Your task to perform on an android device: install app "DuckDuckGo Privacy Browser" Image 0: 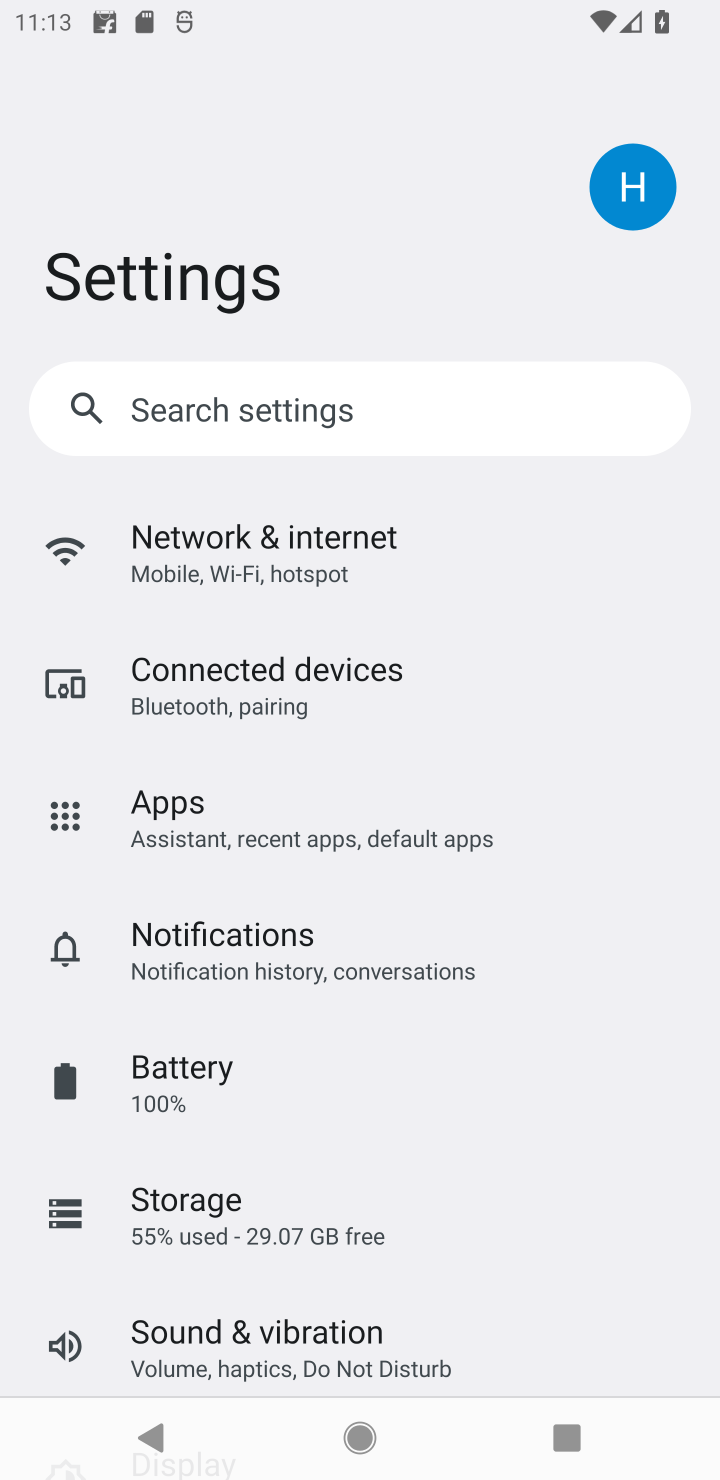
Step 0: press home button
Your task to perform on an android device: install app "DuckDuckGo Privacy Browser" Image 1: 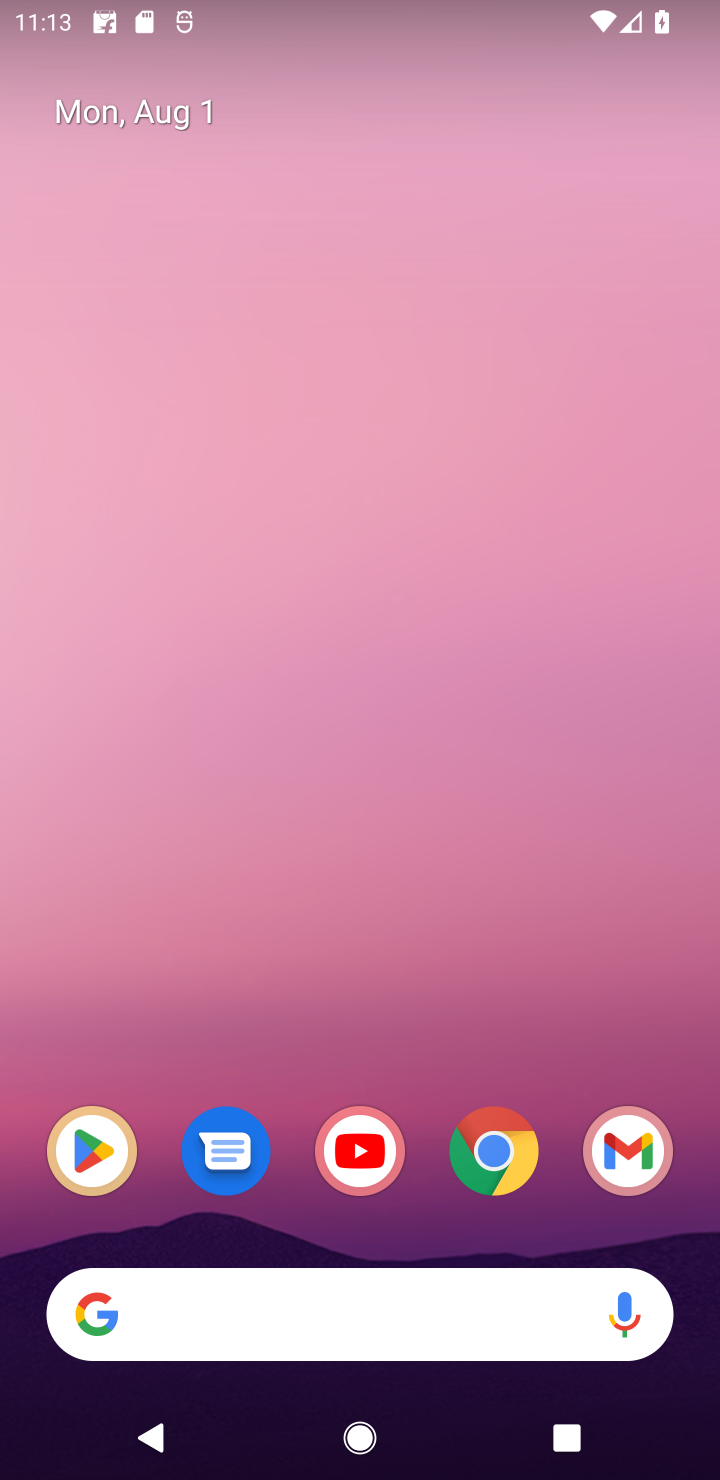
Step 1: click (105, 1130)
Your task to perform on an android device: install app "DuckDuckGo Privacy Browser" Image 2: 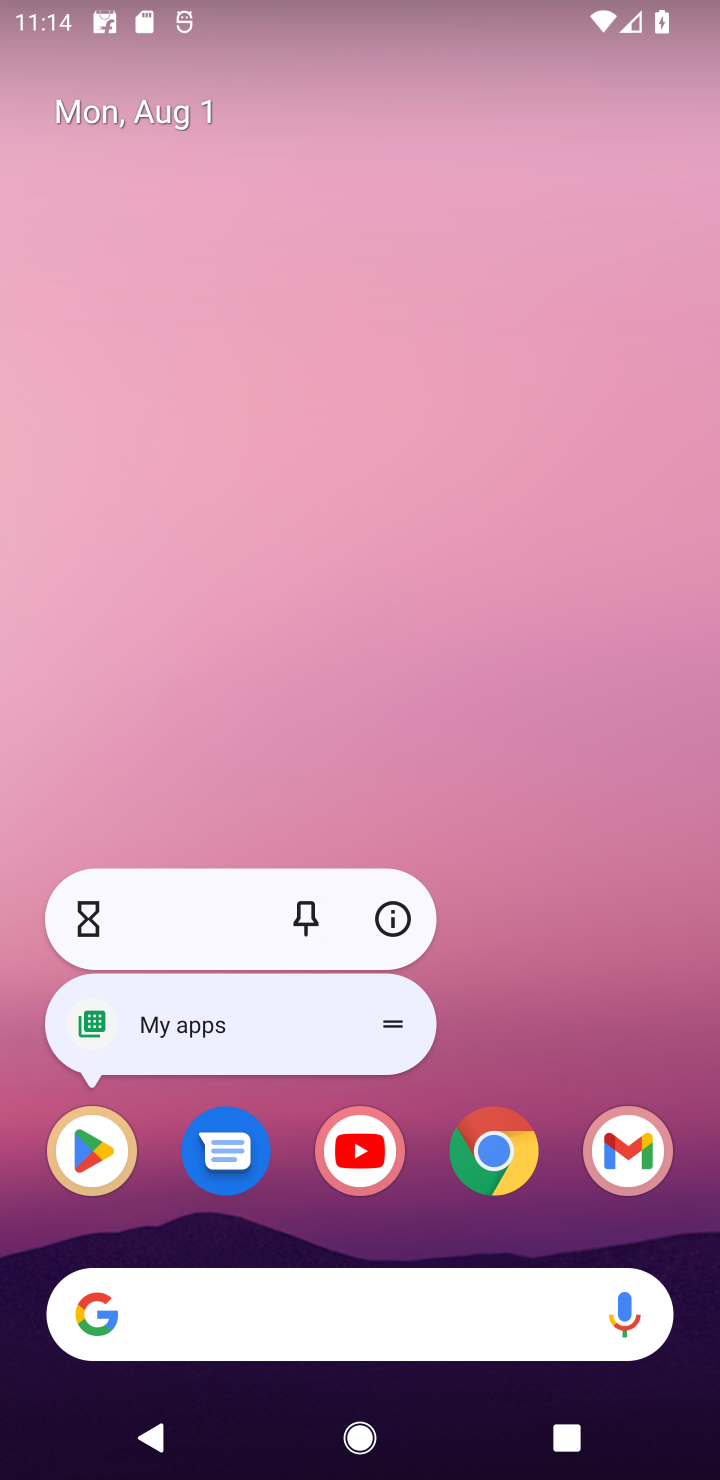
Step 2: click (77, 1150)
Your task to perform on an android device: install app "DuckDuckGo Privacy Browser" Image 3: 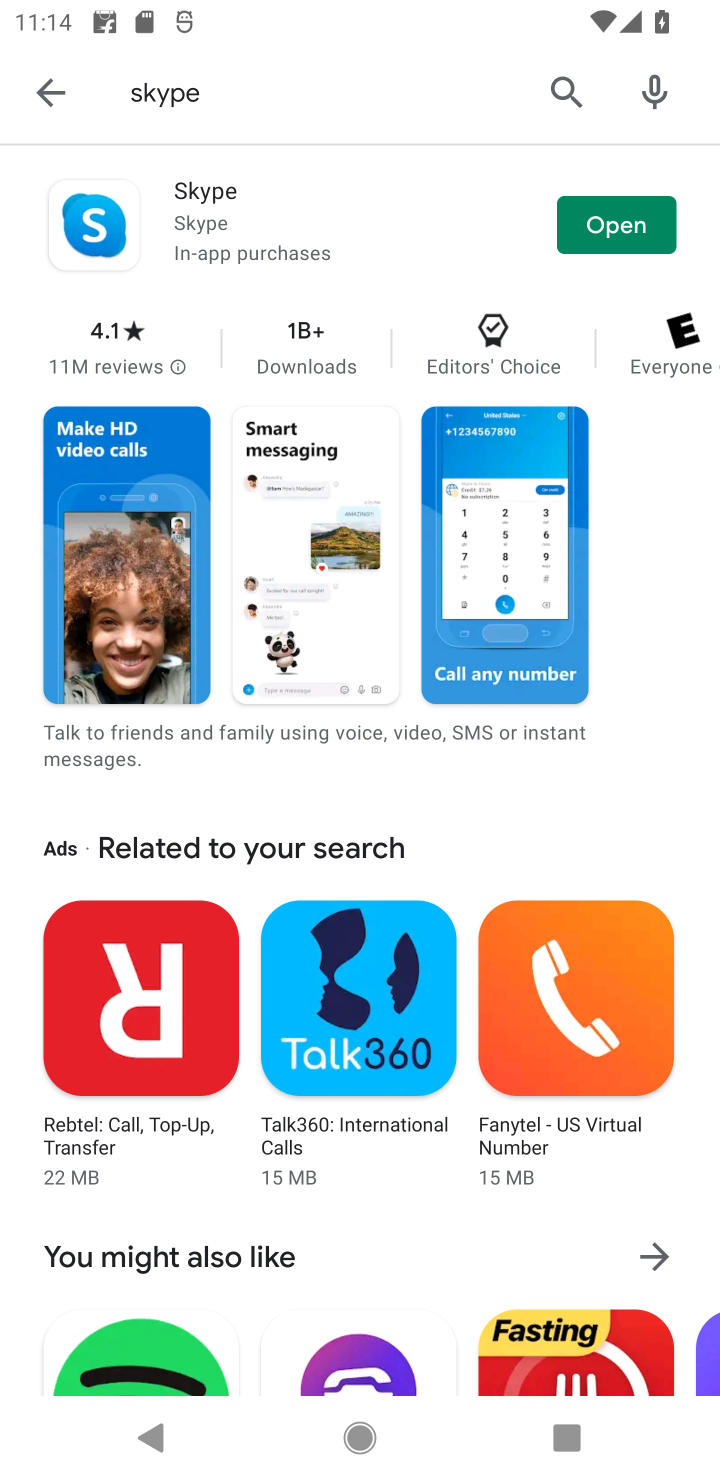
Step 3: click (541, 95)
Your task to perform on an android device: install app "DuckDuckGo Privacy Browser" Image 4: 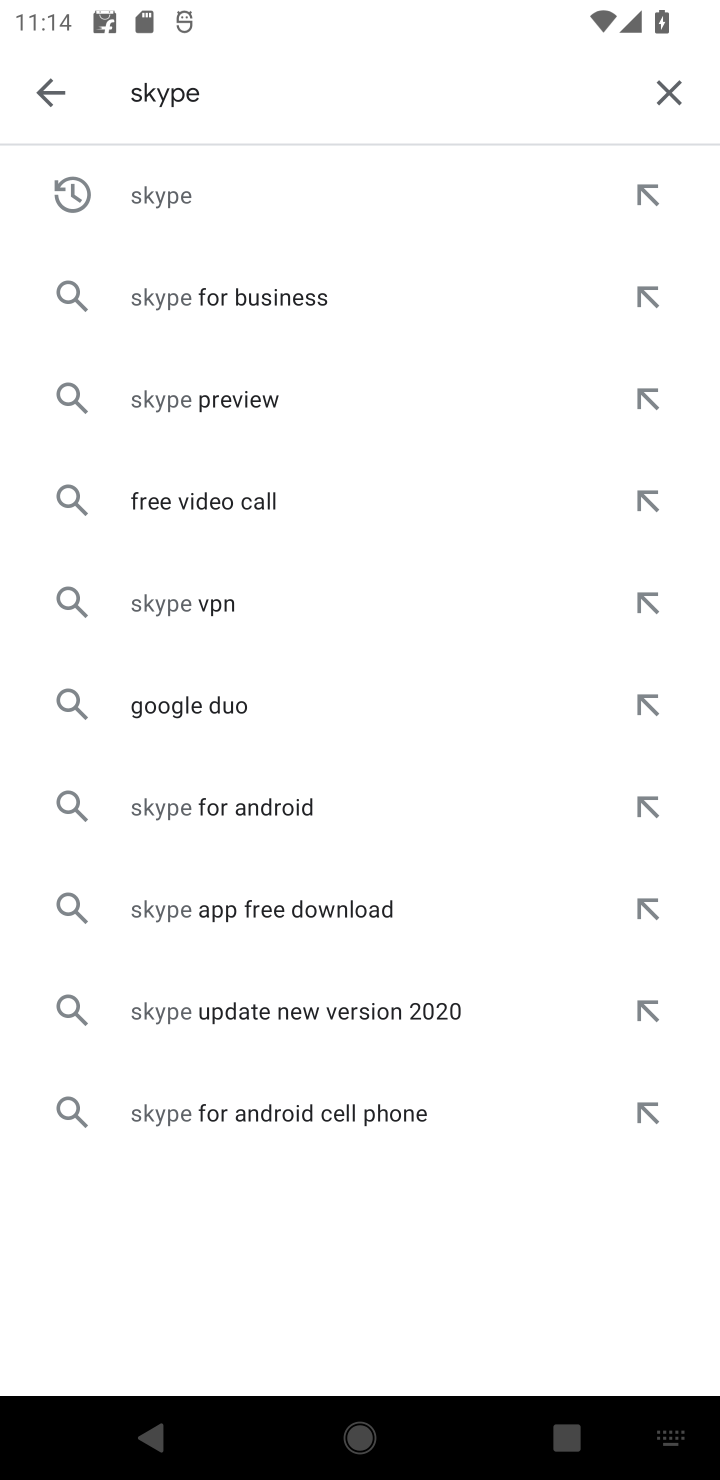
Step 4: click (659, 92)
Your task to perform on an android device: install app "DuckDuckGo Privacy Browser" Image 5: 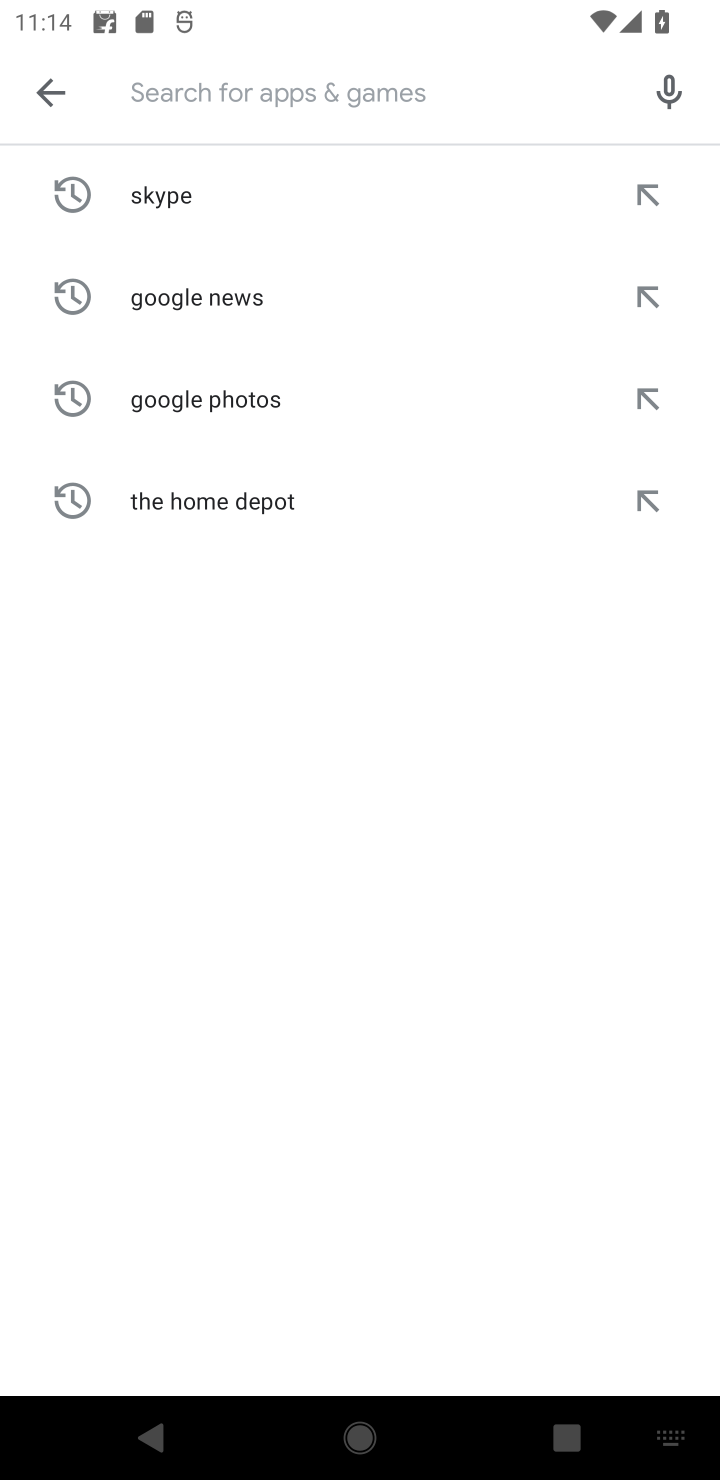
Step 5: type "DuckDuckGo Privacy Browser"
Your task to perform on an android device: install app "DuckDuckGo Privacy Browser" Image 6: 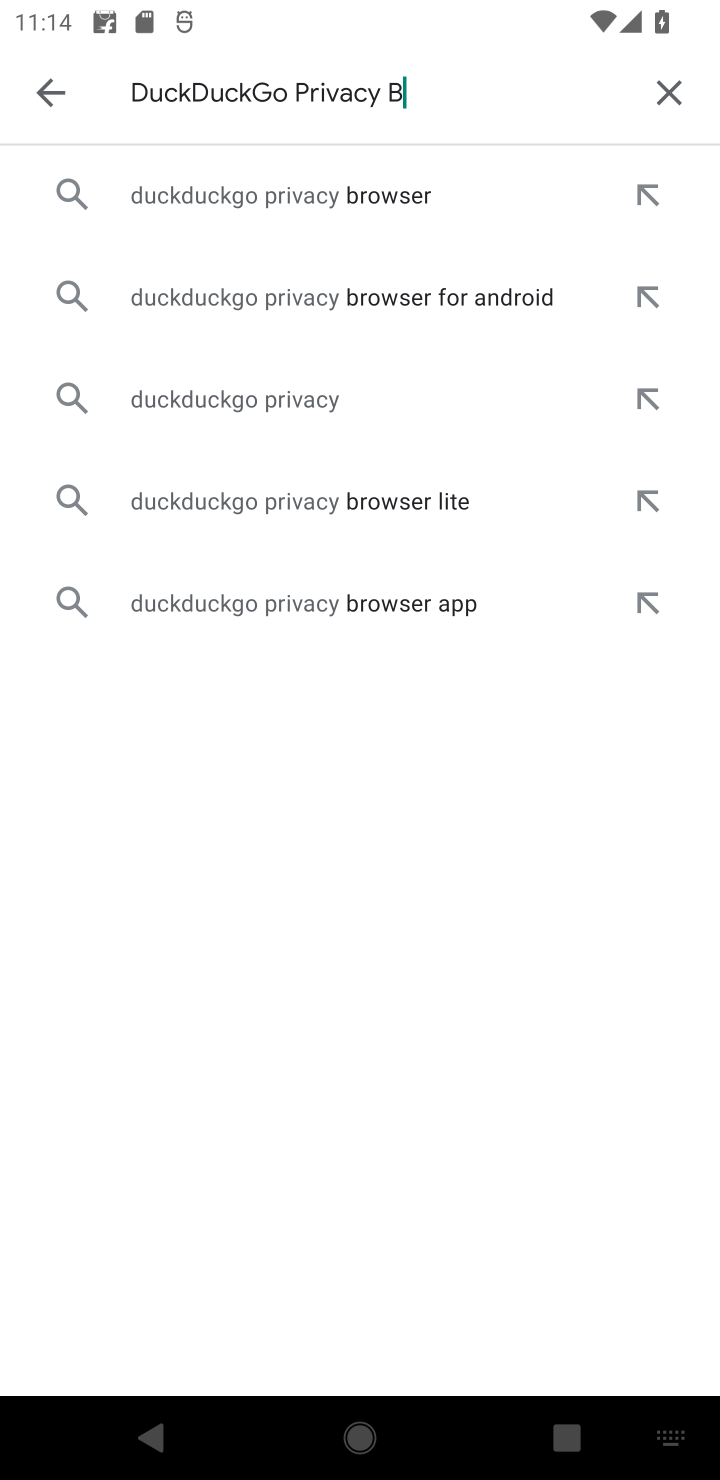
Step 6: type ""
Your task to perform on an android device: install app "DuckDuckGo Privacy Browser" Image 7: 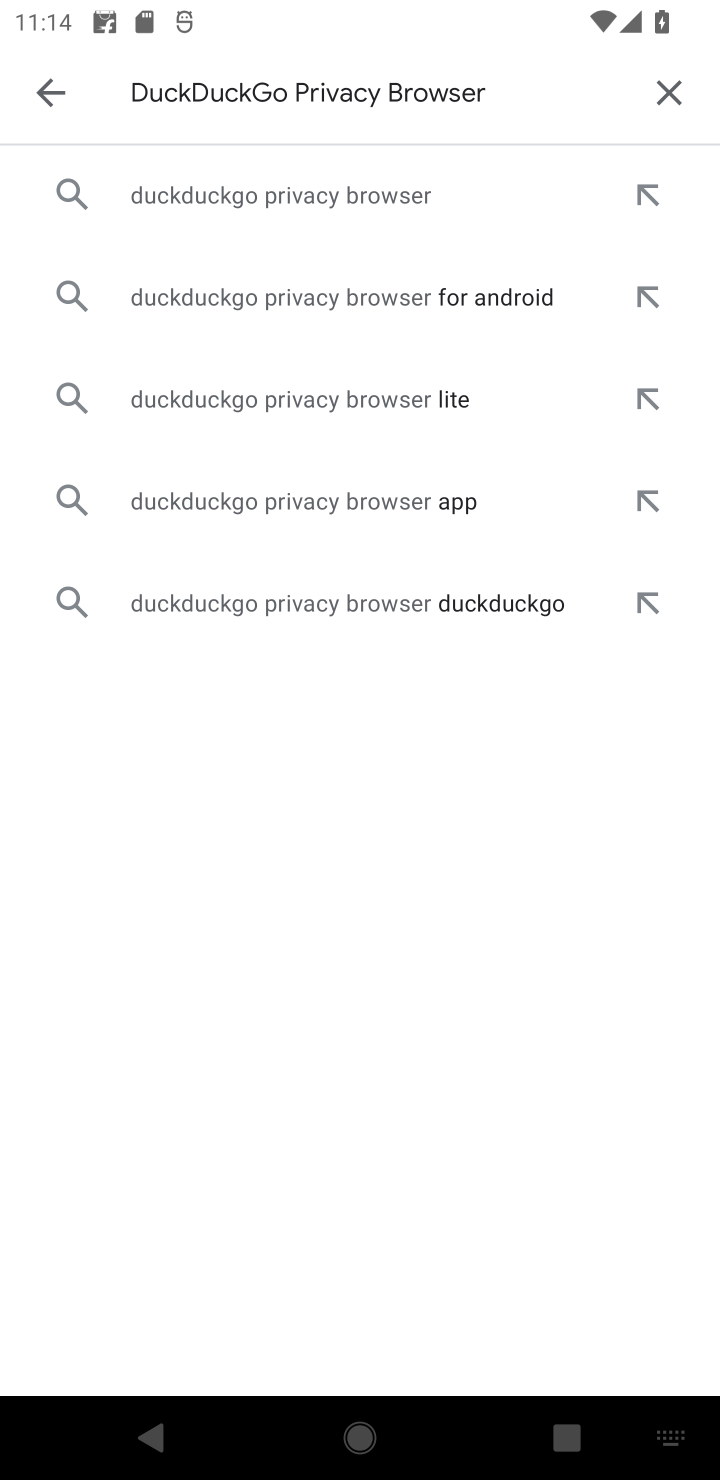
Step 7: click (294, 201)
Your task to perform on an android device: install app "DuckDuckGo Privacy Browser" Image 8: 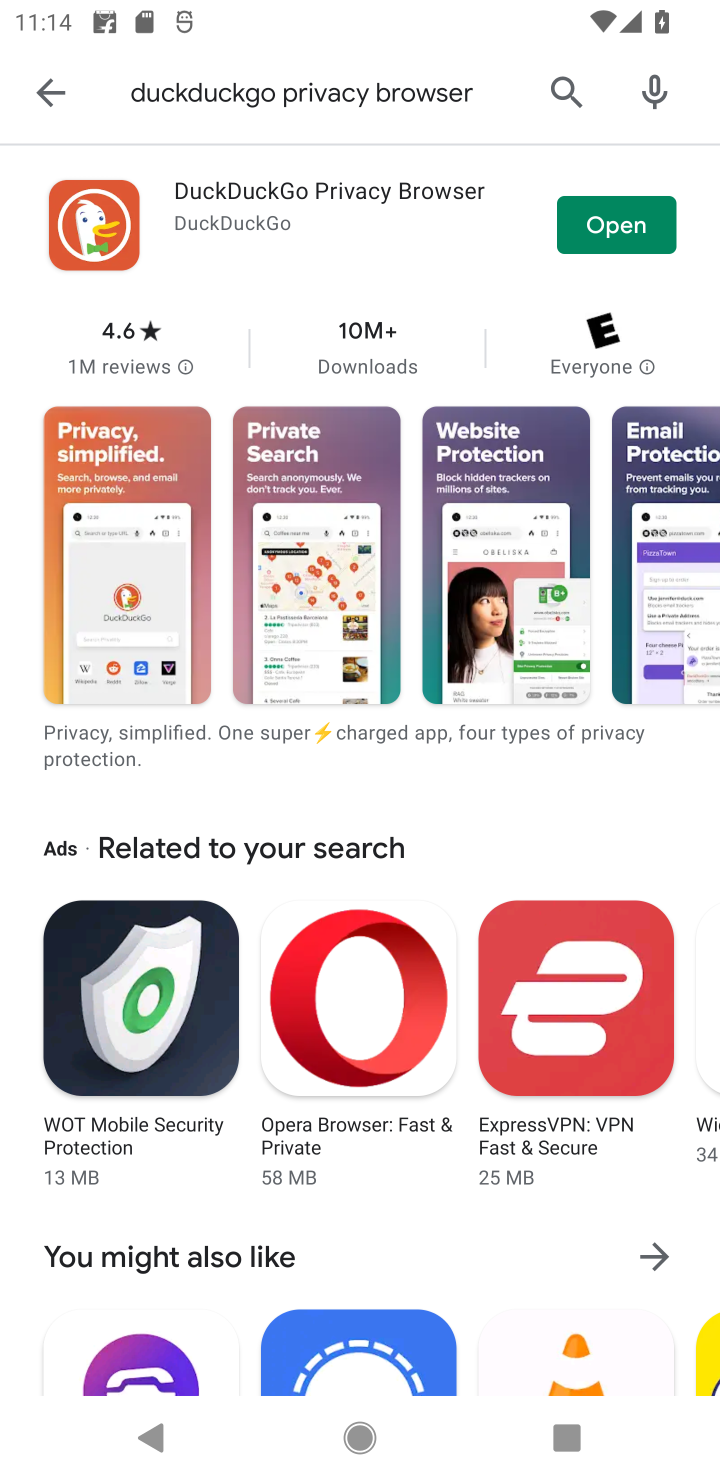
Step 8: task complete